Your task to perform on an android device: Open Reddit.com Image 0: 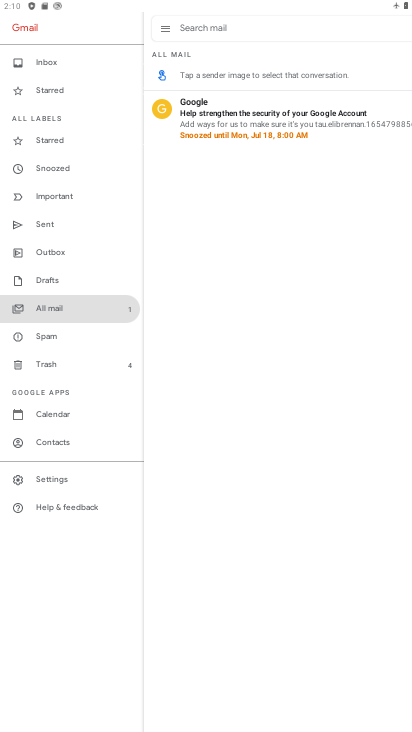
Step 0: press home button
Your task to perform on an android device: Open Reddit.com Image 1: 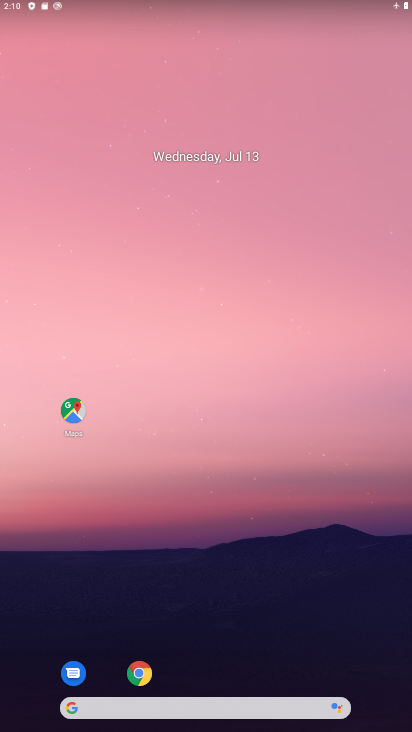
Step 1: click (140, 673)
Your task to perform on an android device: Open Reddit.com Image 2: 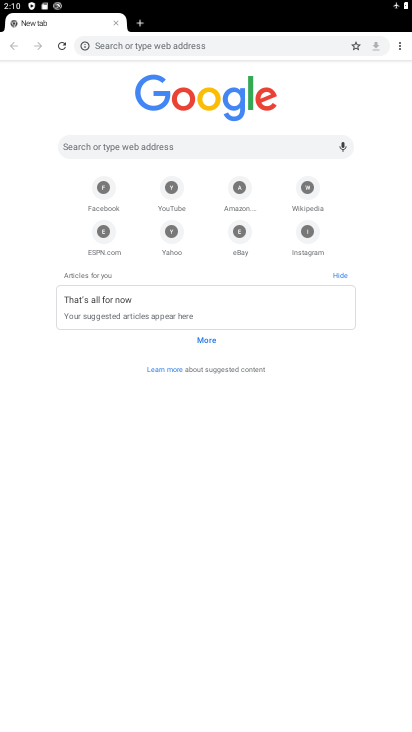
Step 2: click (231, 48)
Your task to perform on an android device: Open Reddit.com Image 3: 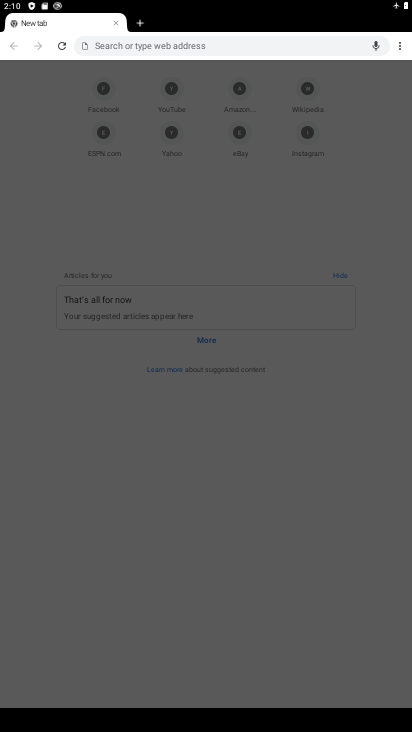
Step 3: type "Reddit.com"
Your task to perform on an android device: Open Reddit.com Image 4: 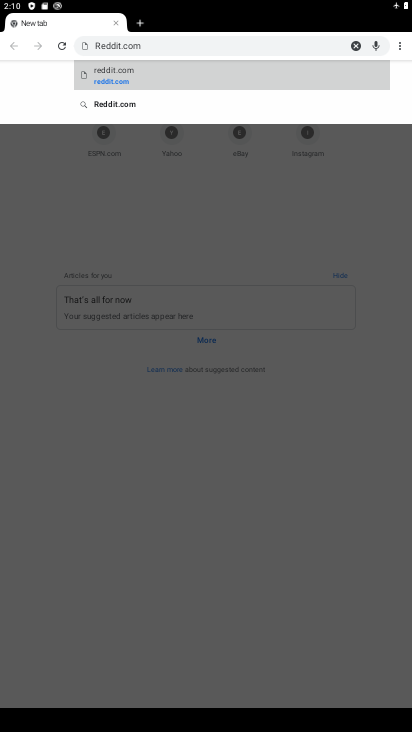
Step 4: click (137, 105)
Your task to perform on an android device: Open Reddit.com Image 5: 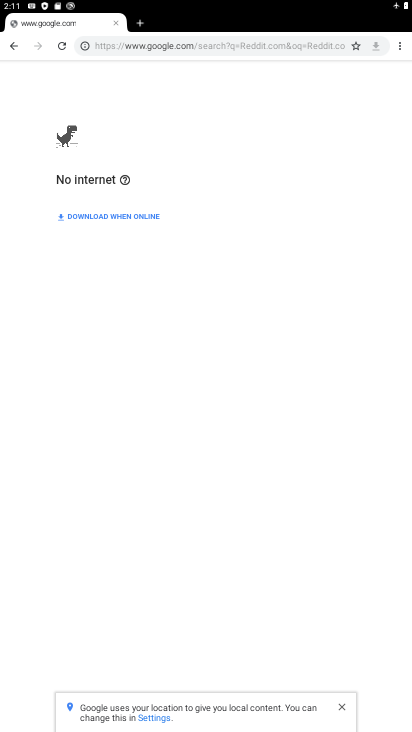
Step 5: task complete